Your task to perform on an android device: Find coffee shops on Maps Image 0: 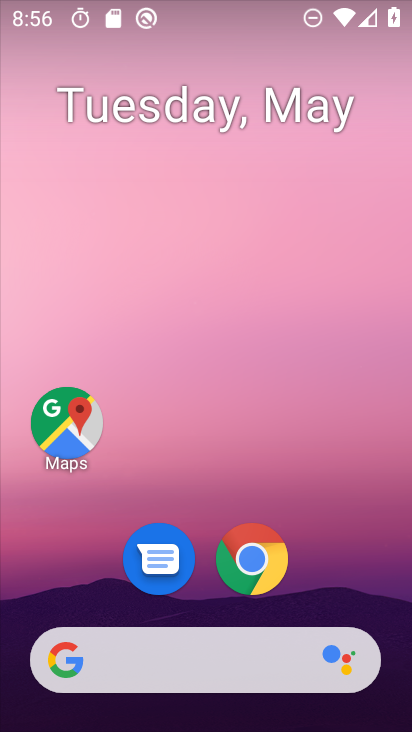
Step 0: drag from (387, 614) to (292, 62)
Your task to perform on an android device: Find coffee shops on Maps Image 1: 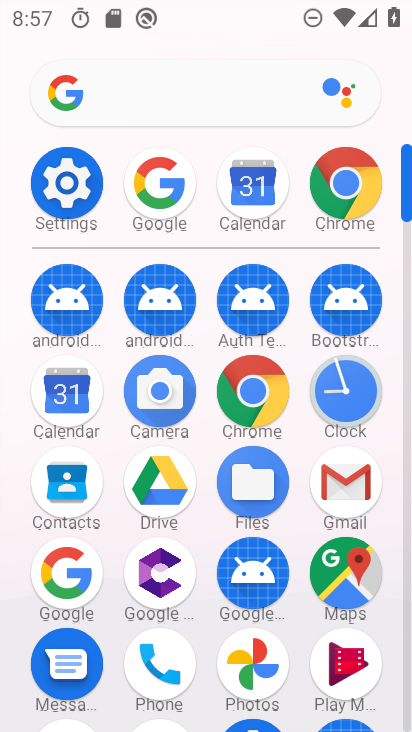
Step 1: click (352, 562)
Your task to perform on an android device: Find coffee shops on Maps Image 2: 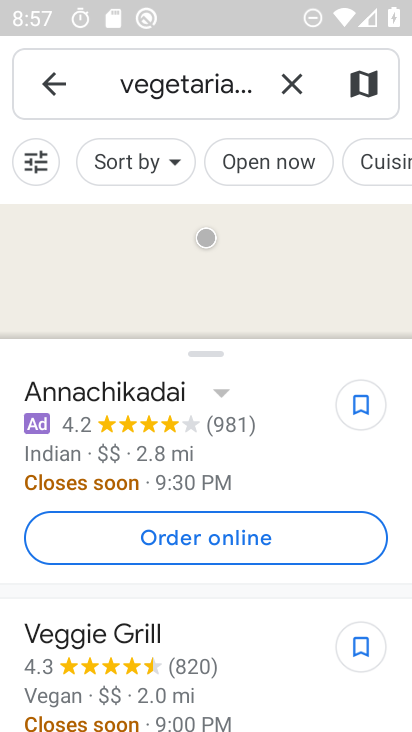
Step 2: click (290, 95)
Your task to perform on an android device: Find coffee shops on Maps Image 3: 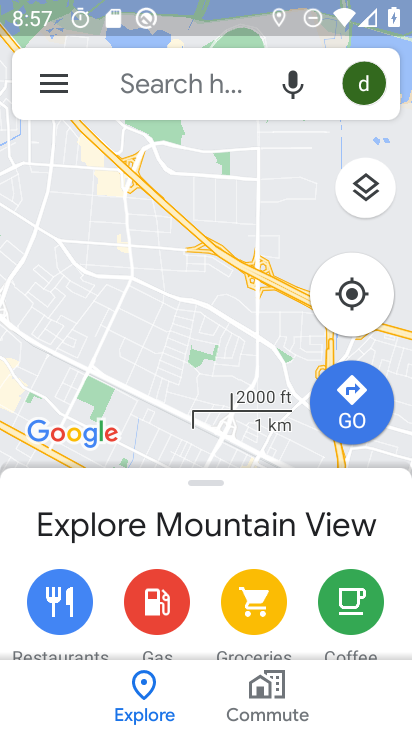
Step 3: click (178, 89)
Your task to perform on an android device: Find coffee shops on Maps Image 4: 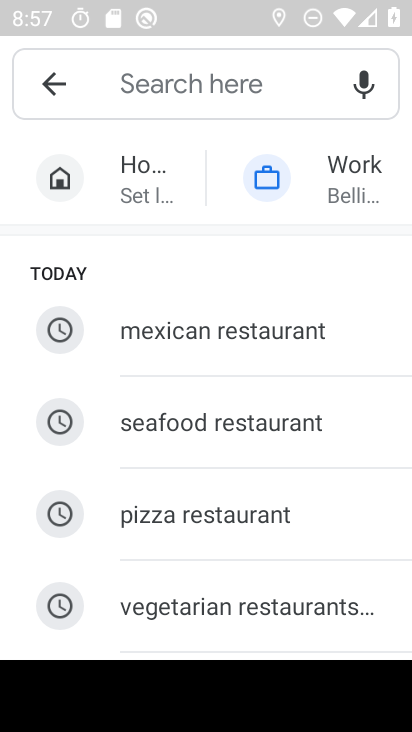
Step 4: type "coffee"
Your task to perform on an android device: Find coffee shops on Maps Image 5: 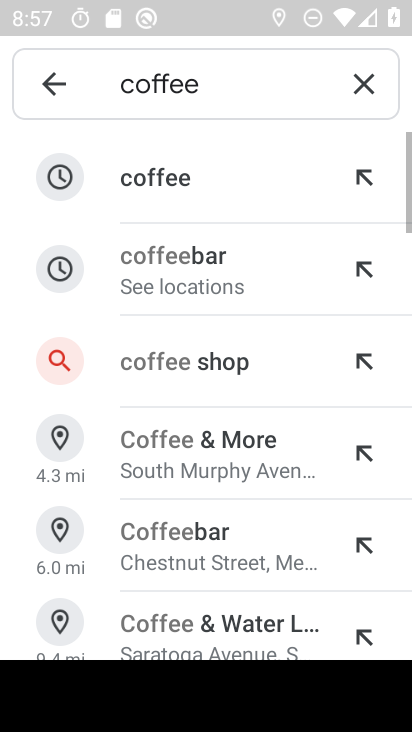
Step 5: click (196, 209)
Your task to perform on an android device: Find coffee shops on Maps Image 6: 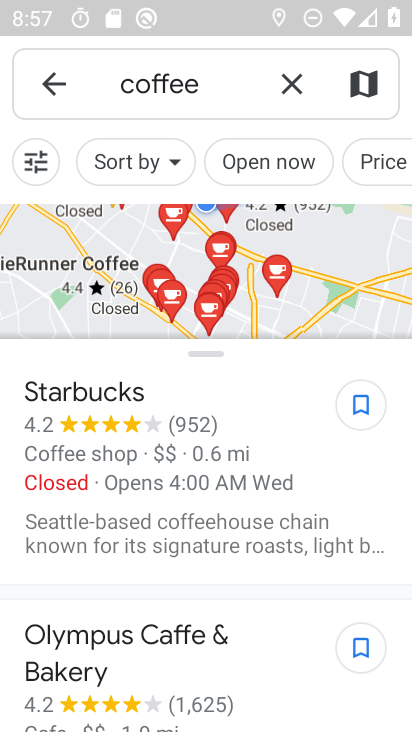
Step 6: task complete